Your task to perform on an android device: Open eBay Image 0: 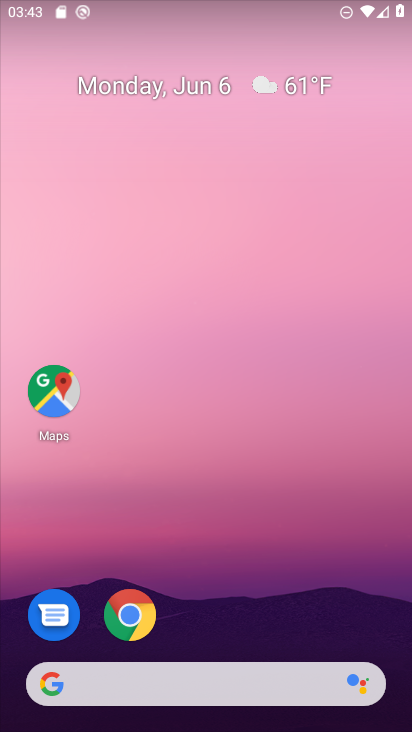
Step 0: click (131, 612)
Your task to perform on an android device: Open eBay Image 1: 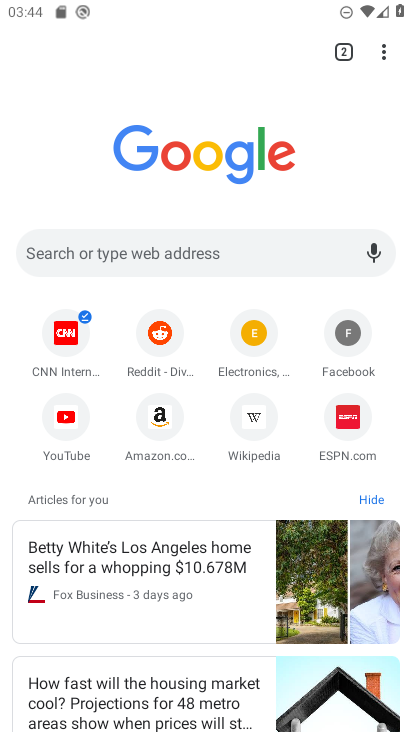
Step 1: click (178, 254)
Your task to perform on an android device: Open eBay Image 2: 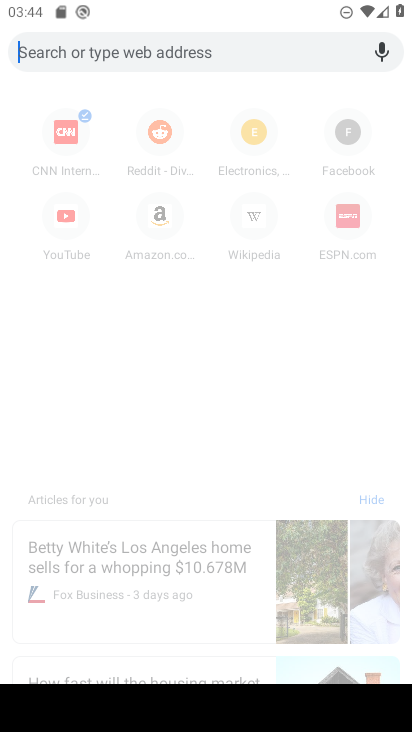
Step 2: type "ebay"
Your task to perform on an android device: Open eBay Image 3: 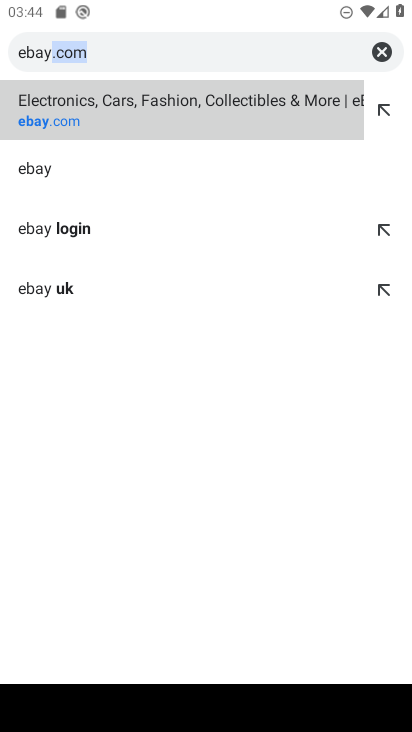
Step 3: click (74, 101)
Your task to perform on an android device: Open eBay Image 4: 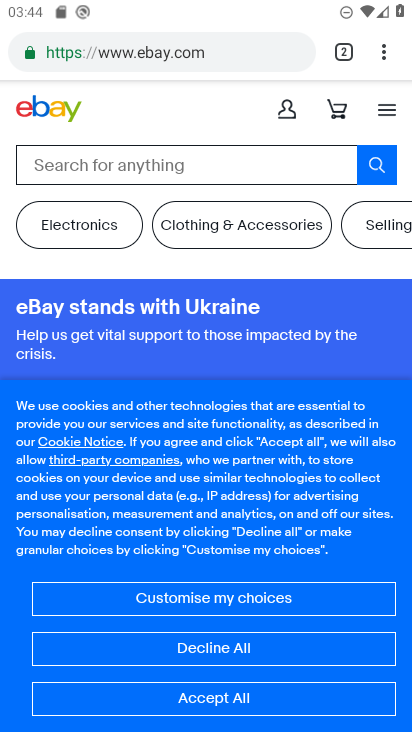
Step 4: task complete